Your task to perform on an android device: Check the weather Image 0: 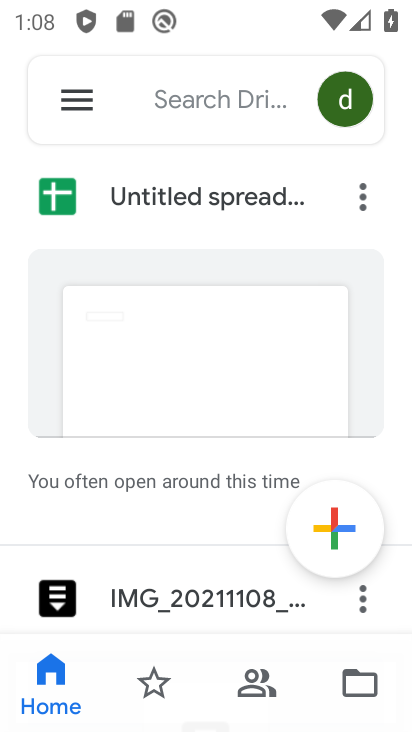
Step 0: press home button
Your task to perform on an android device: Check the weather Image 1: 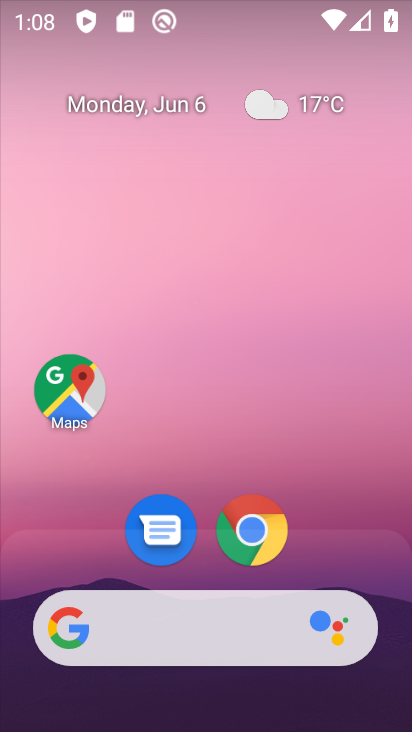
Step 1: drag from (336, 525) to (186, 66)
Your task to perform on an android device: Check the weather Image 2: 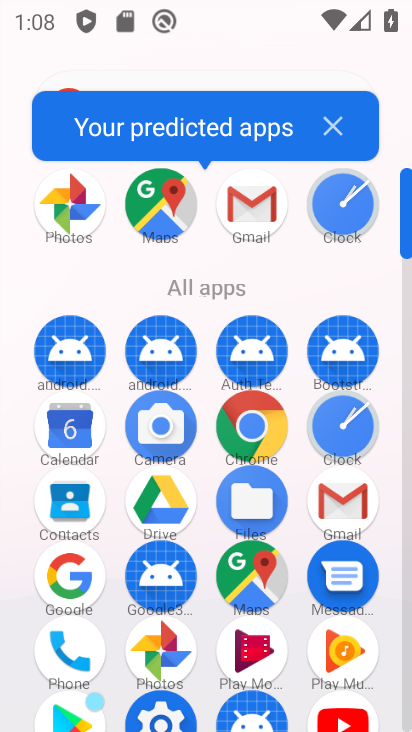
Step 2: click (119, 78)
Your task to perform on an android device: Check the weather Image 3: 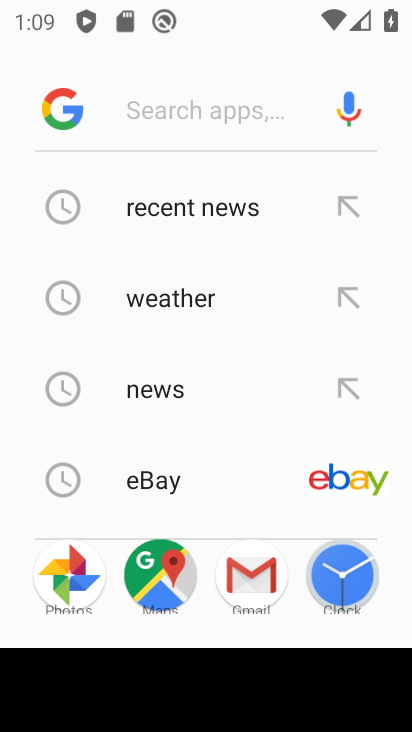
Step 3: click (184, 300)
Your task to perform on an android device: Check the weather Image 4: 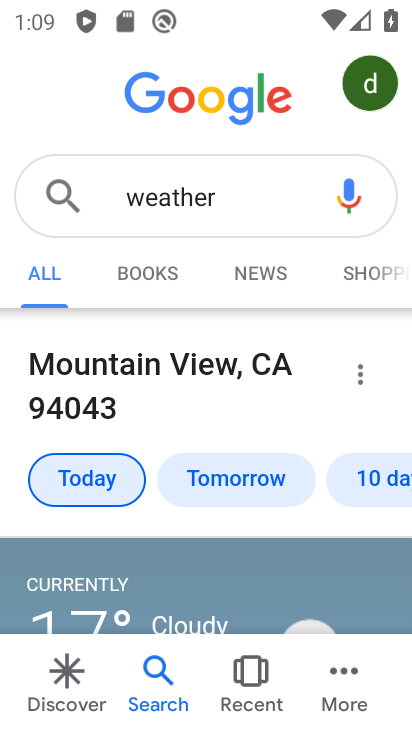
Step 4: task complete